Your task to perform on an android device: Open settings Image 0: 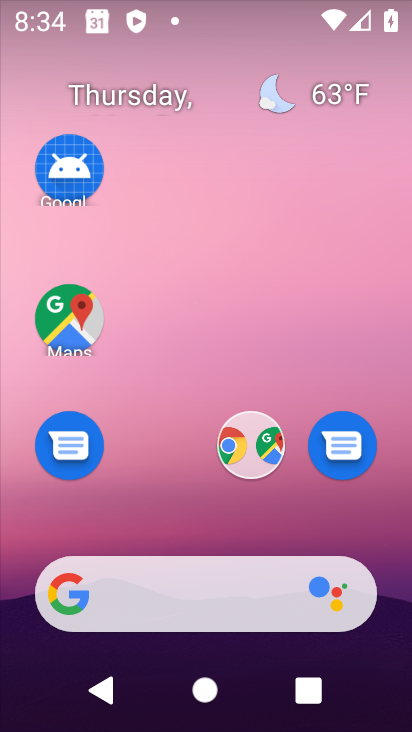
Step 0: drag from (202, 529) to (182, 42)
Your task to perform on an android device: Open settings Image 1: 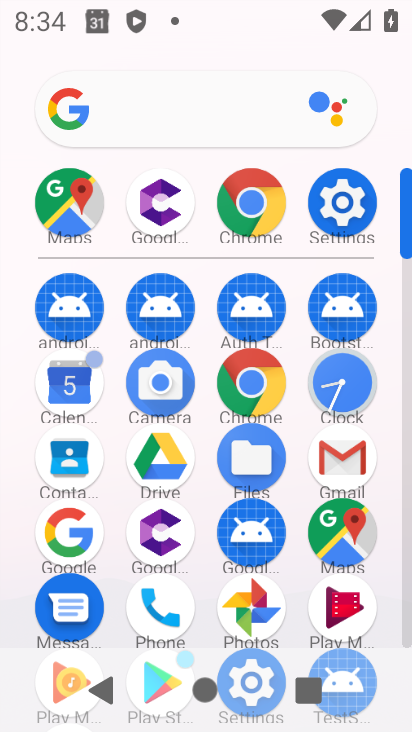
Step 1: click (182, 42)
Your task to perform on an android device: Open settings Image 2: 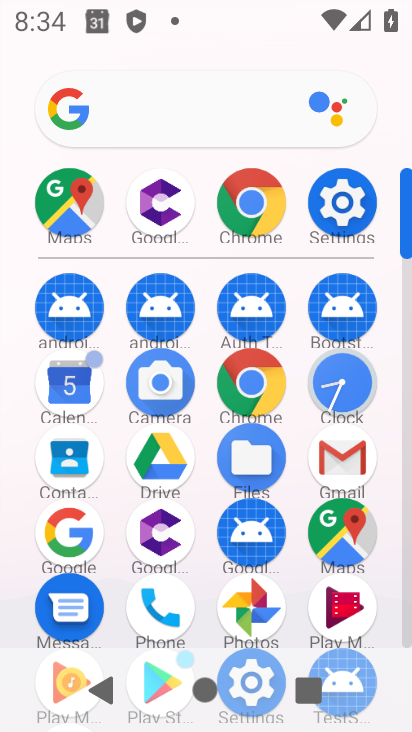
Step 2: click (353, 185)
Your task to perform on an android device: Open settings Image 3: 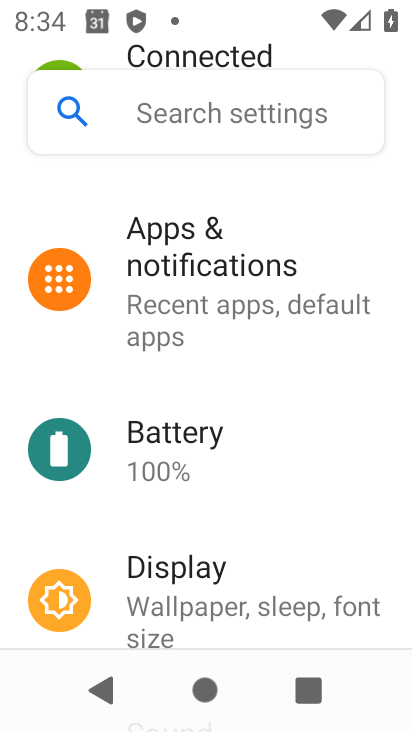
Step 3: task complete